Your task to perform on an android device: open chrome and create a bookmark for the current page Image 0: 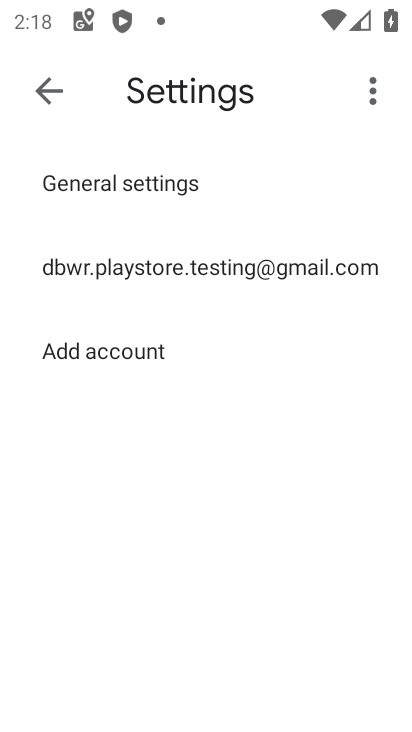
Step 0: press home button
Your task to perform on an android device: open chrome and create a bookmark for the current page Image 1: 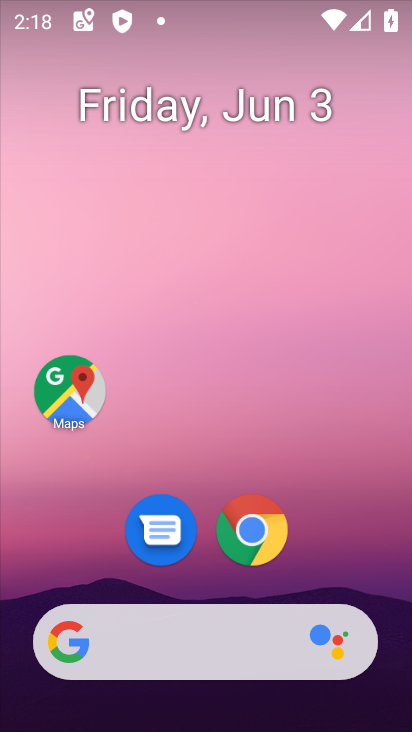
Step 1: click (253, 534)
Your task to perform on an android device: open chrome and create a bookmark for the current page Image 2: 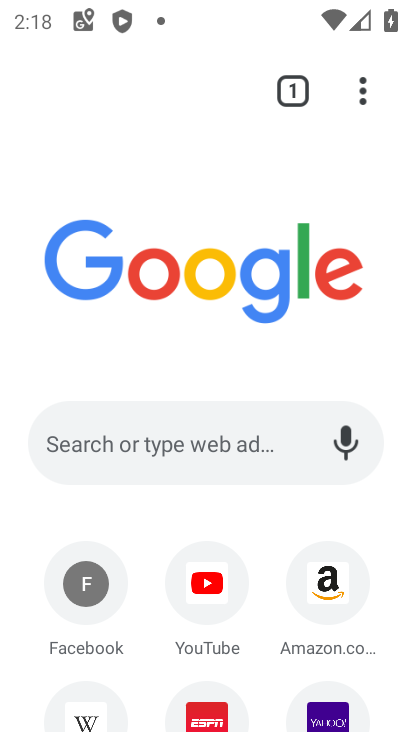
Step 2: click (364, 87)
Your task to perform on an android device: open chrome and create a bookmark for the current page Image 3: 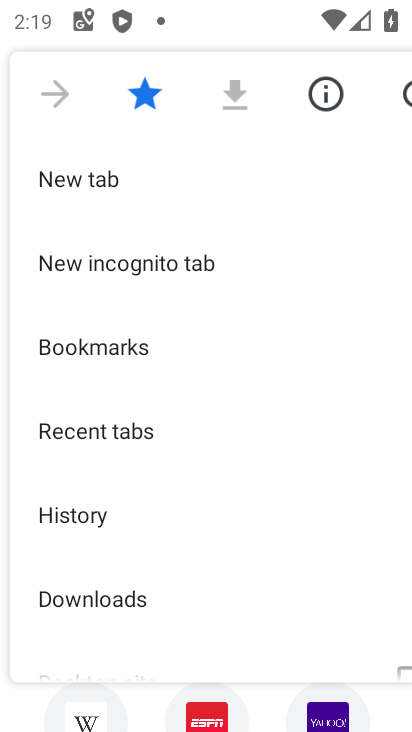
Step 3: task complete